Your task to perform on an android device: Is it going to rain this weekend? Image 0: 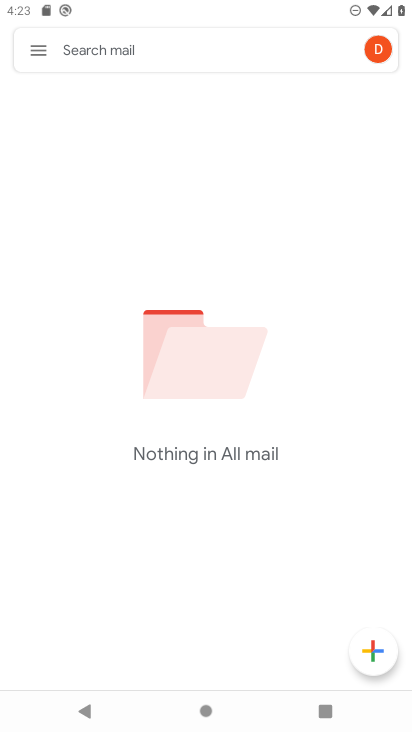
Step 0: press home button
Your task to perform on an android device: Is it going to rain this weekend? Image 1: 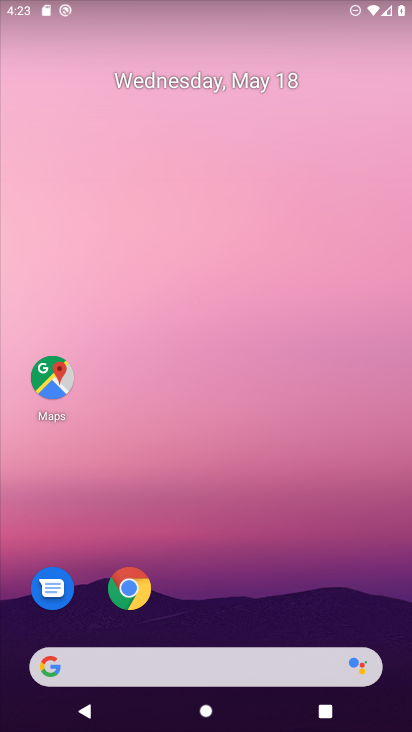
Step 1: drag from (264, 591) to (258, 16)
Your task to perform on an android device: Is it going to rain this weekend? Image 2: 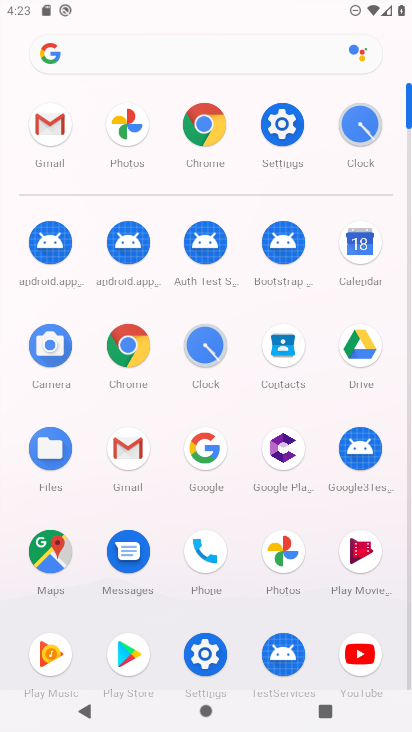
Step 2: click (216, 58)
Your task to perform on an android device: Is it going to rain this weekend? Image 3: 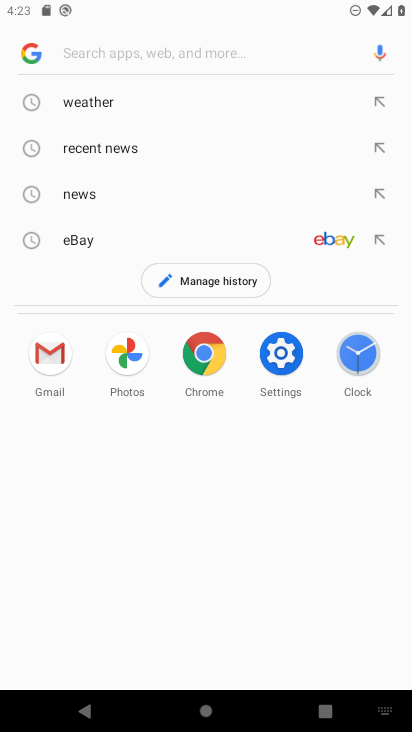
Step 3: click (107, 106)
Your task to perform on an android device: Is it going to rain this weekend? Image 4: 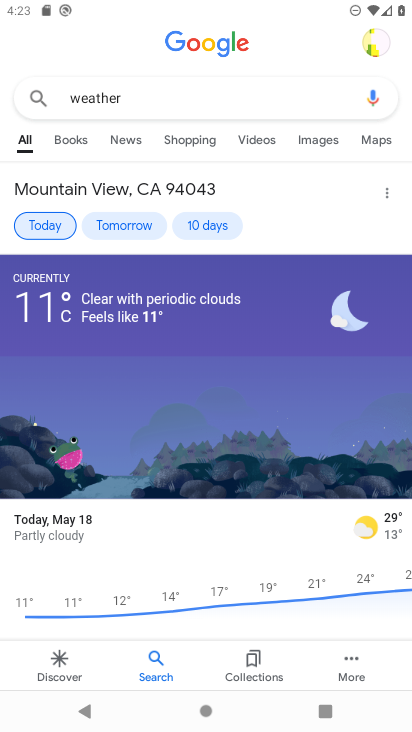
Step 4: click (216, 227)
Your task to perform on an android device: Is it going to rain this weekend? Image 5: 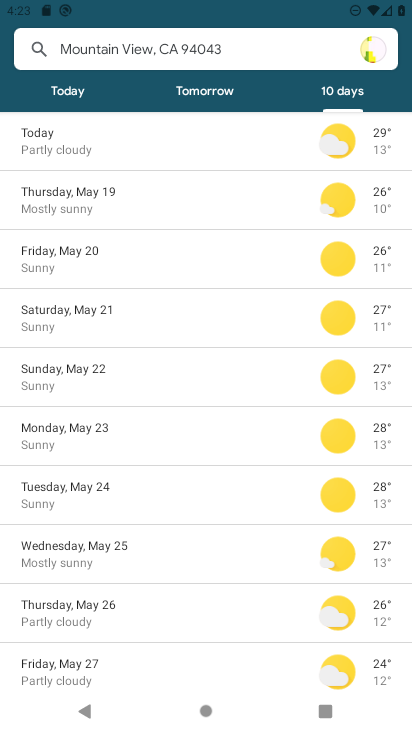
Step 5: task complete